Your task to perform on an android device: What is the recent news? Image 0: 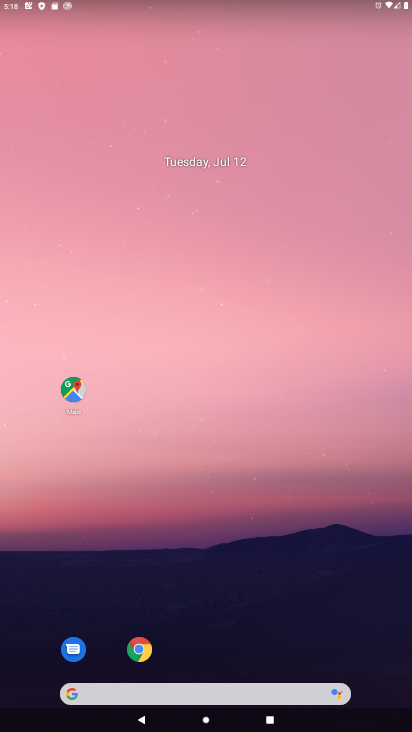
Step 0: drag from (196, 692) to (204, 326)
Your task to perform on an android device: What is the recent news? Image 1: 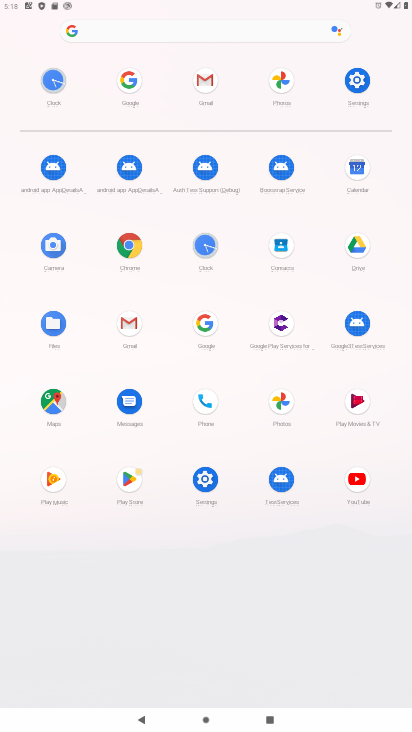
Step 1: click (204, 322)
Your task to perform on an android device: What is the recent news? Image 2: 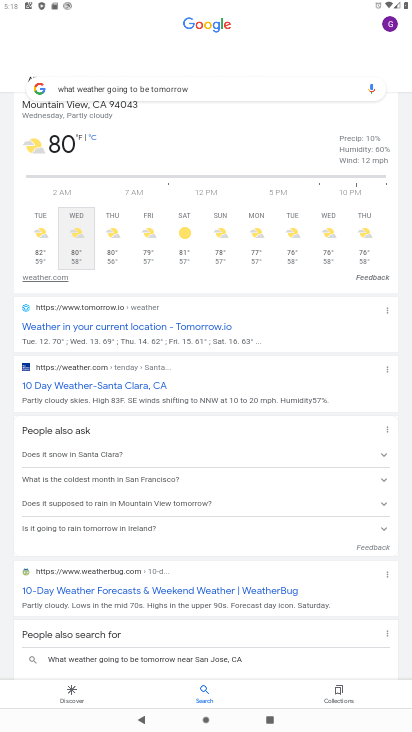
Step 2: click (210, 88)
Your task to perform on an android device: What is the recent news? Image 3: 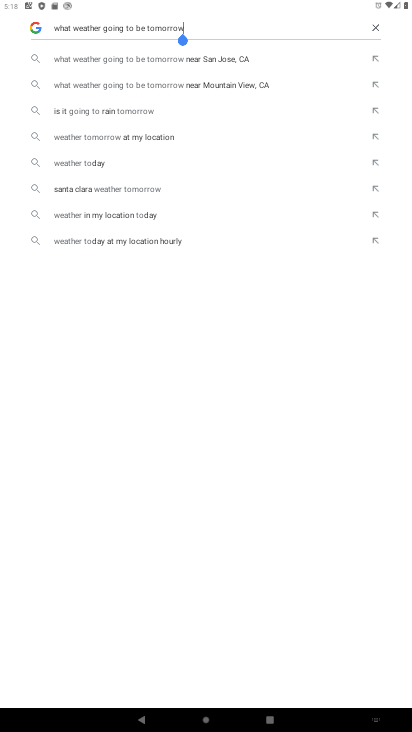
Step 3: click (377, 29)
Your task to perform on an android device: What is the recent news? Image 4: 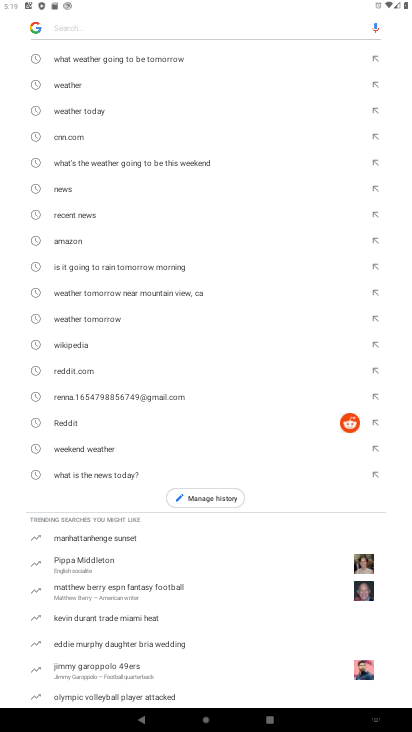
Step 4: type "What is the recent news?"
Your task to perform on an android device: What is the recent news? Image 5: 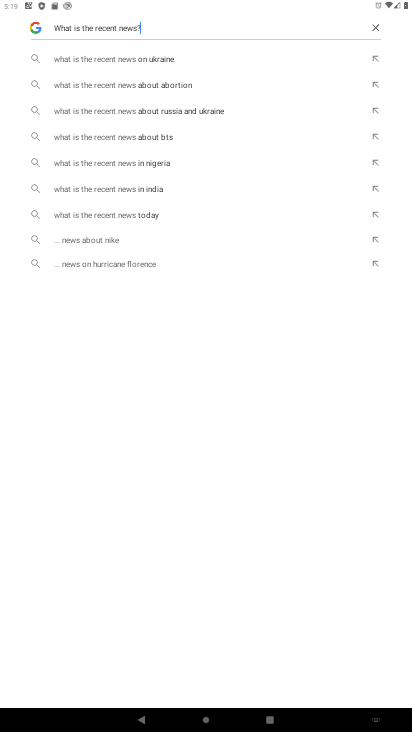
Step 5: click (107, 217)
Your task to perform on an android device: What is the recent news? Image 6: 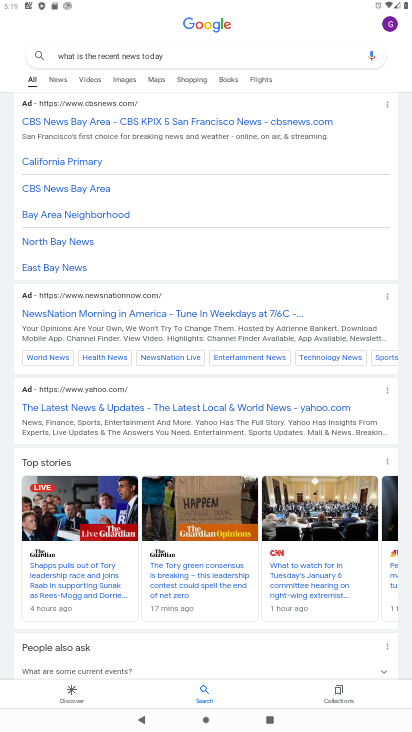
Step 6: click (79, 562)
Your task to perform on an android device: What is the recent news? Image 7: 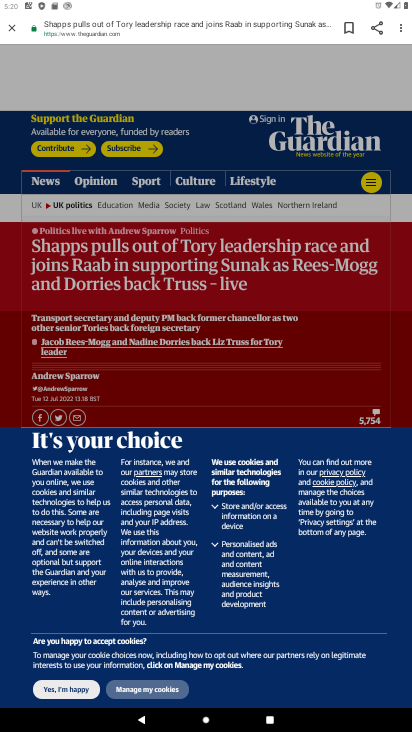
Step 7: task complete